Your task to perform on an android device: Open Chrome and go to settings Image 0: 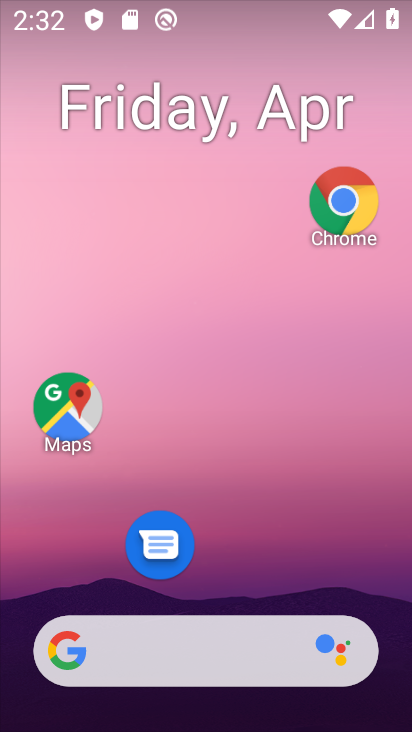
Step 0: click (339, 212)
Your task to perform on an android device: Open Chrome and go to settings Image 1: 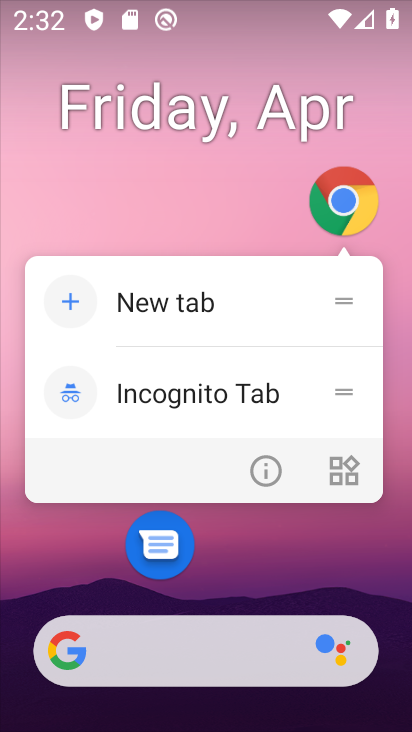
Step 1: click (338, 214)
Your task to perform on an android device: Open Chrome and go to settings Image 2: 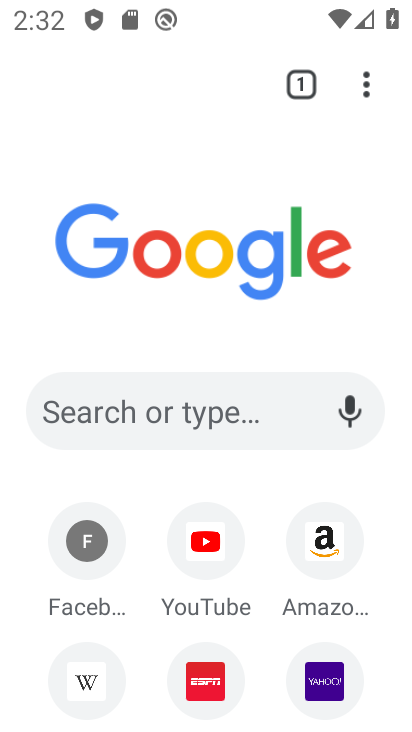
Step 2: click (366, 103)
Your task to perform on an android device: Open Chrome and go to settings Image 3: 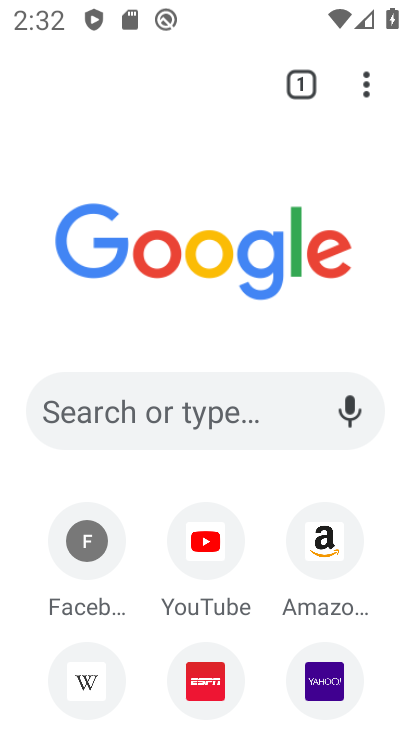
Step 3: click (353, 103)
Your task to perform on an android device: Open Chrome and go to settings Image 4: 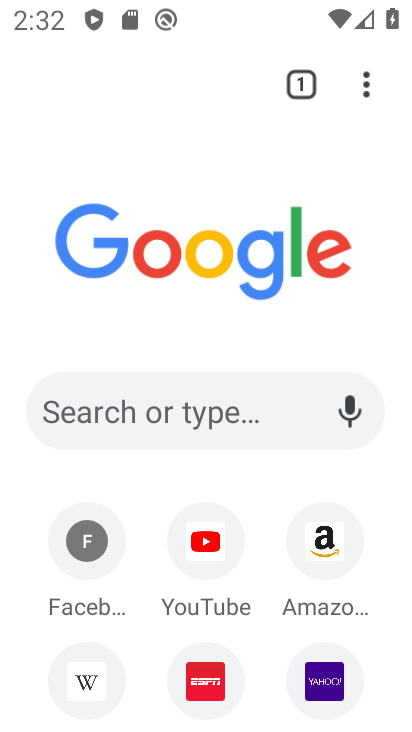
Step 4: click (366, 92)
Your task to perform on an android device: Open Chrome and go to settings Image 5: 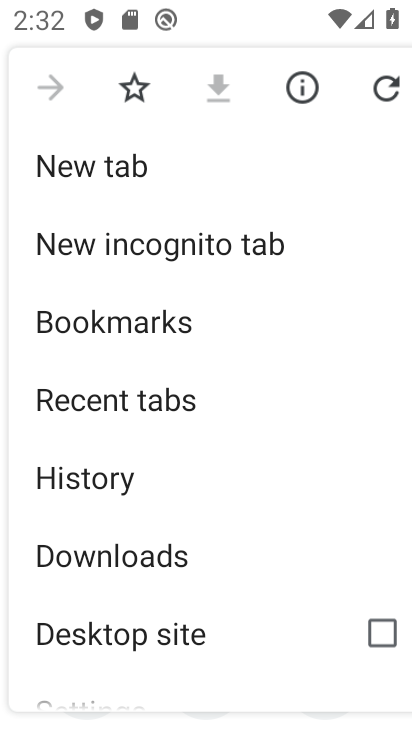
Step 5: drag from (115, 619) to (112, 400)
Your task to perform on an android device: Open Chrome and go to settings Image 6: 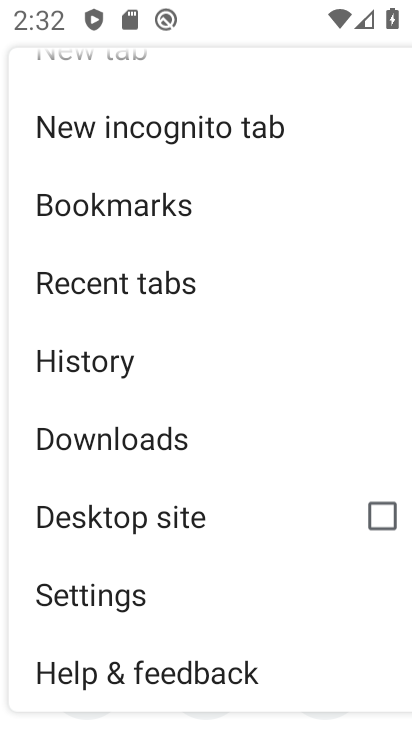
Step 6: click (93, 598)
Your task to perform on an android device: Open Chrome and go to settings Image 7: 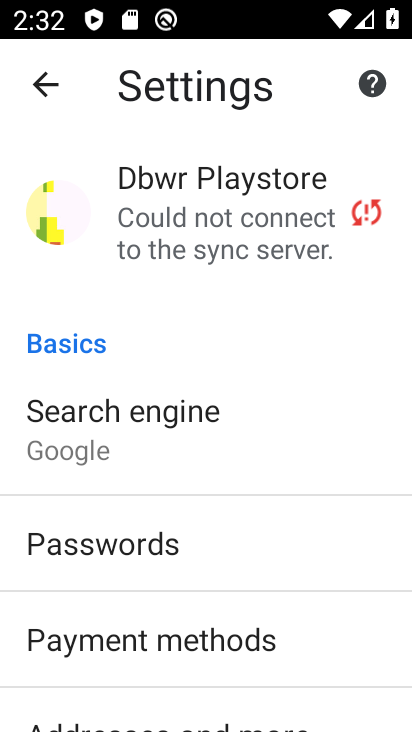
Step 7: task complete